Your task to perform on an android device: delete a single message in the gmail app Image 0: 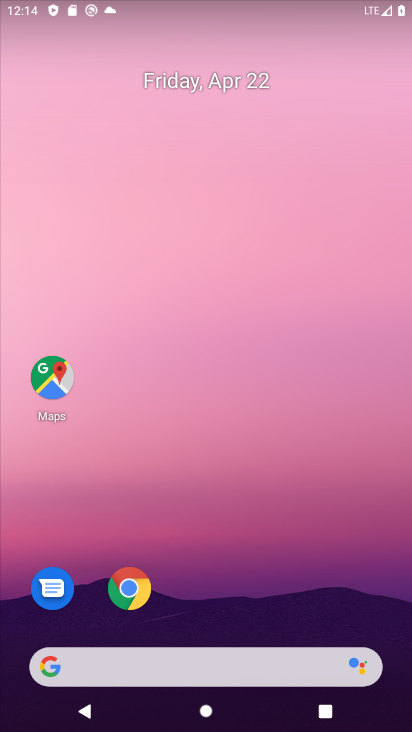
Step 0: drag from (228, 684) to (275, 312)
Your task to perform on an android device: delete a single message in the gmail app Image 1: 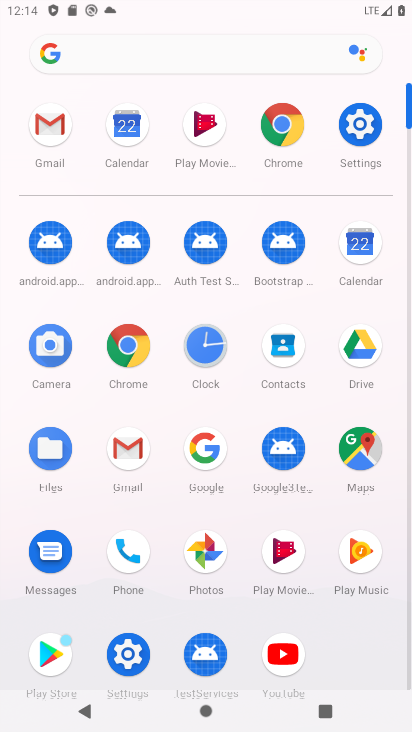
Step 1: click (130, 435)
Your task to perform on an android device: delete a single message in the gmail app Image 2: 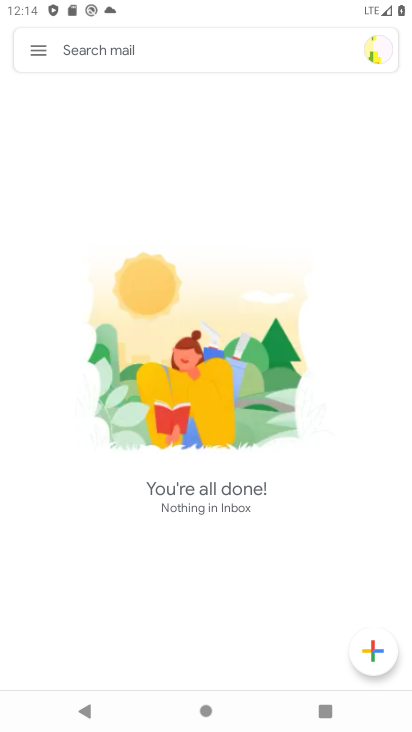
Step 2: click (45, 53)
Your task to perform on an android device: delete a single message in the gmail app Image 3: 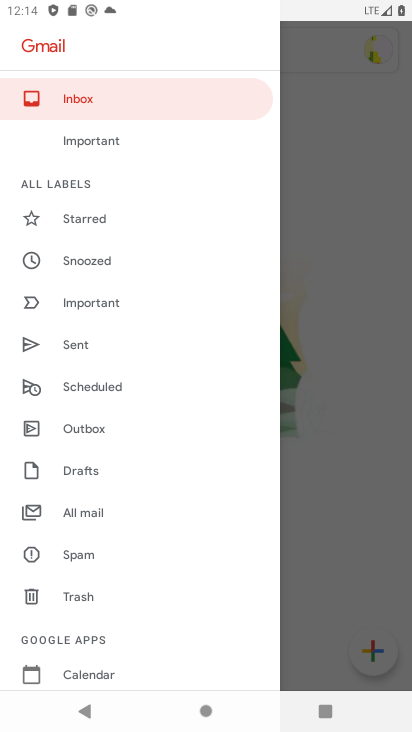
Step 3: click (75, 511)
Your task to perform on an android device: delete a single message in the gmail app Image 4: 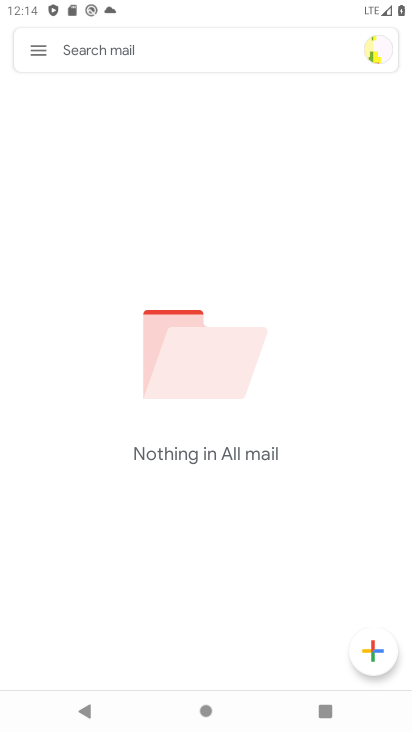
Step 4: task complete